Your task to perform on an android device: turn off location Image 0: 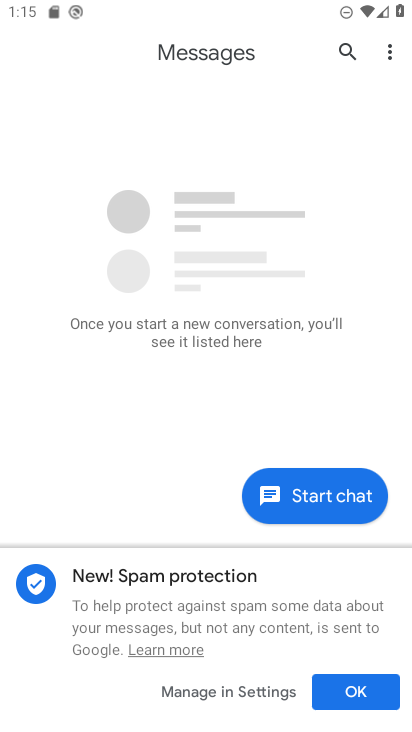
Step 0: press back button
Your task to perform on an android device: turn off location Image 1: 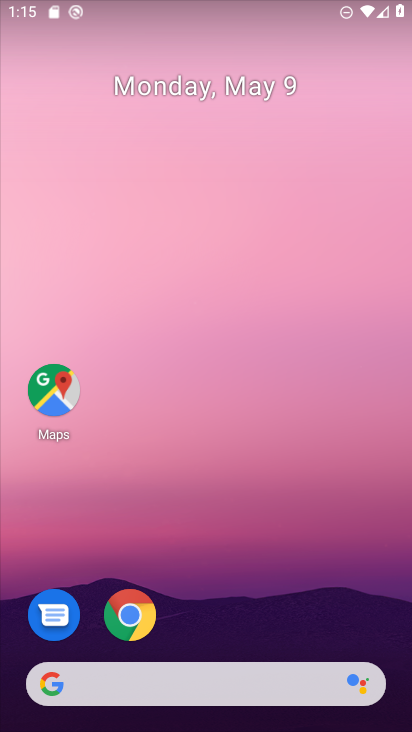
Step 1: drag from (225, 575) to (217, 79)
Your task to perform on an android device: turn off location Image 2: 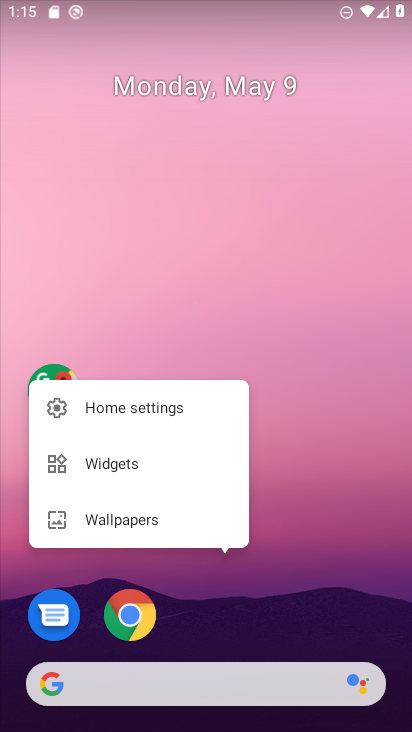
Step 2: drag from (279, 531) to (244, 21)
Your task to perform on an android device: turn off location Image 3: 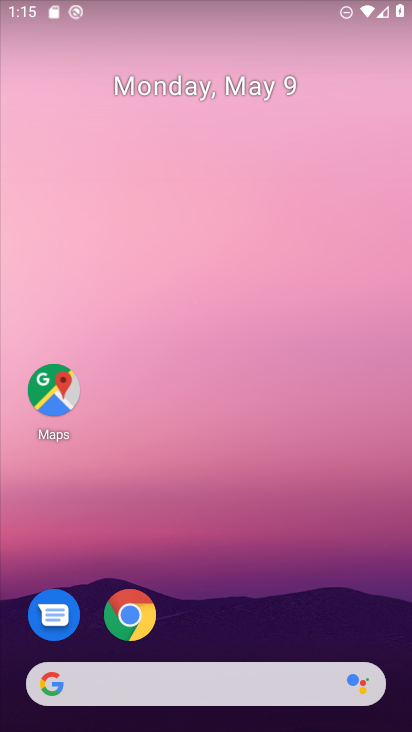
Step 3: drag from (175, 520) to (132, 8)
Your task to perform on an android device: turn off location Image 4: 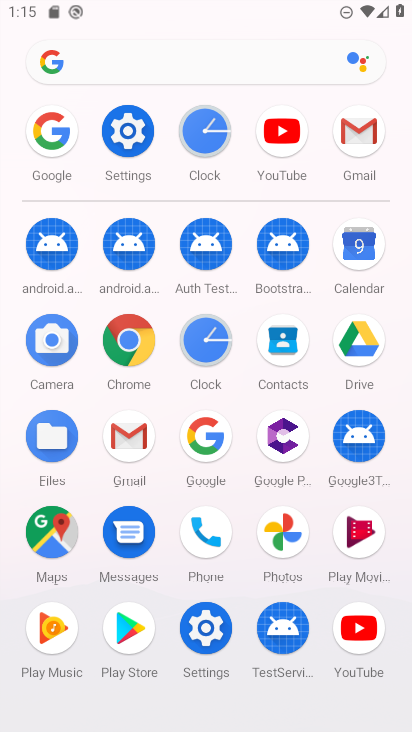
Step 4: click (127, 132)
Your task to perform on an android device: turn off location Image 5: 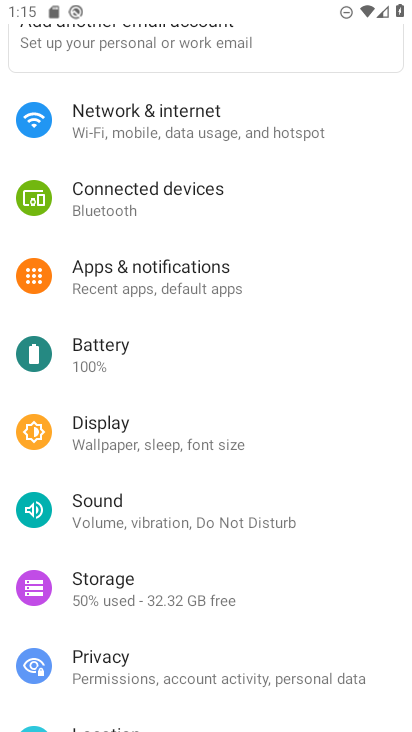
Step 5: drag from (220, 464) to (216, 376)
Your task to perform on an android device: turn off location Image 6: 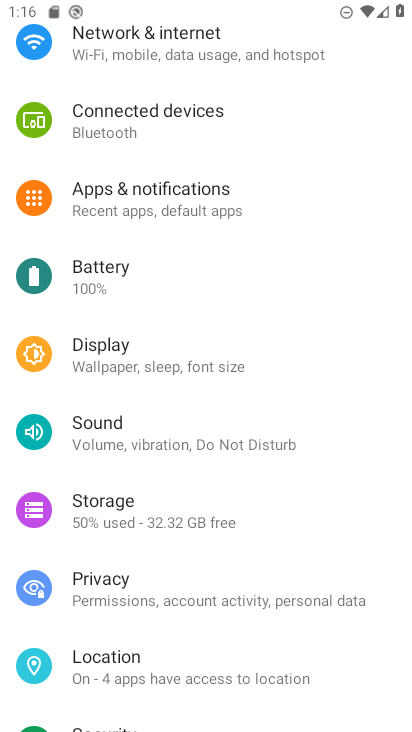
Step 6: drag from (162, 473) to (197, 352)
Your task to perform on an android device: turn off location Image 7: 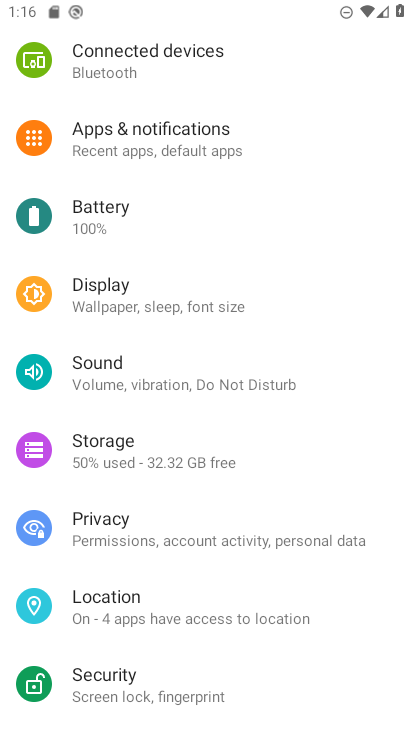
Step 7: click (102, 591)
Your task to perform on an android device: turn off location Image 8: 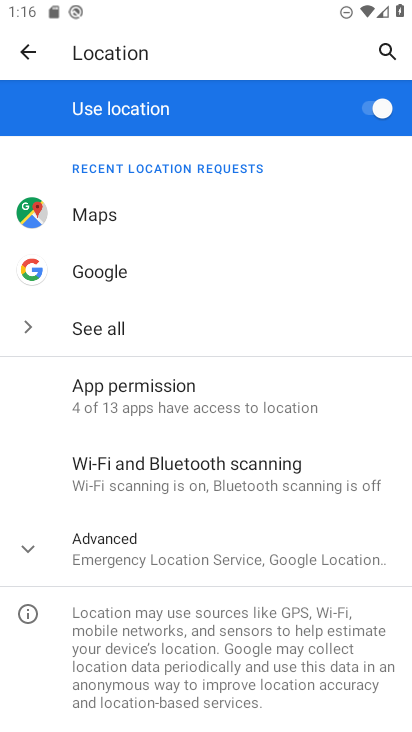
Step 8: click (372, 117)
Your task to perform on an android device: turn off location Image 9: 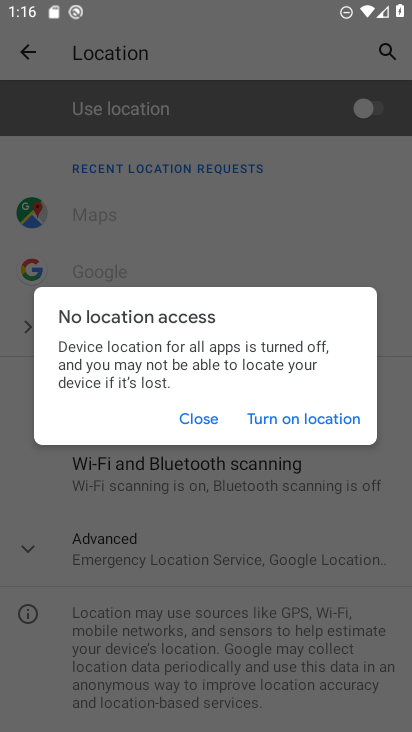
Step 9: click (204, 421)
Your task to perform on an android device: turn off location Image 10: 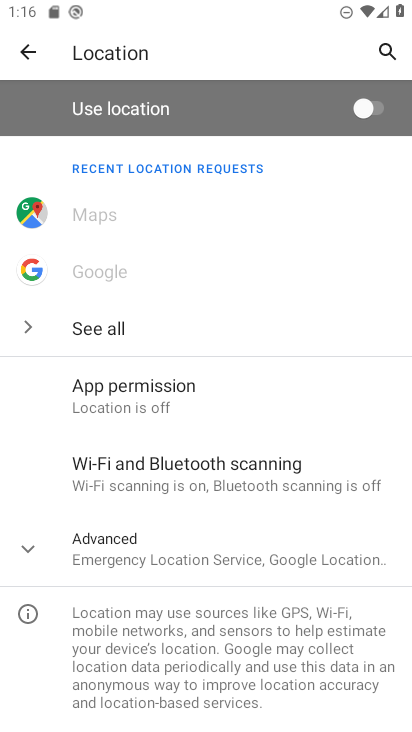
Step 10: task complete